Your task to perform on an android device: find snoozed emails in the gmail app Image 0: 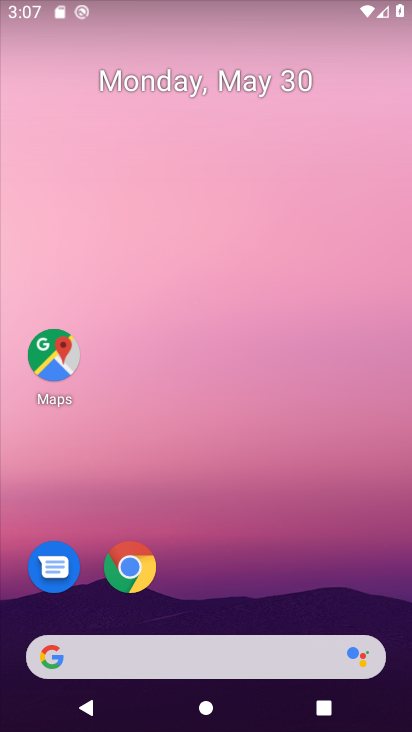
Step 0: drag from (238, 582) to (256, 1)
Your task to perform on an android device: find snoozed emails in the gmail app Image 1: 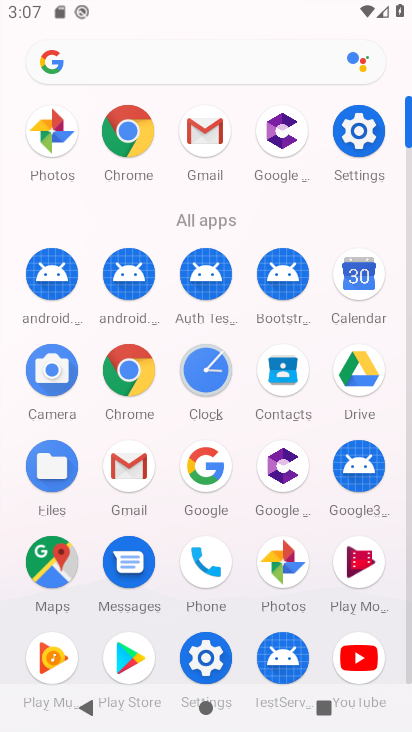
Step 1: click (138, 464)
Your task to perform on an android device: find snoozed emails in the gmail app Image 2: 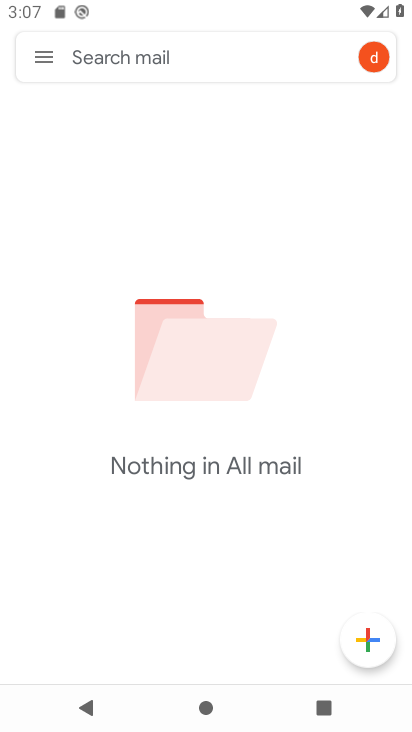
Step 2: click (38, 47)
Your task to perform on an android device: find snoozed emails in the gmail app Image 3: 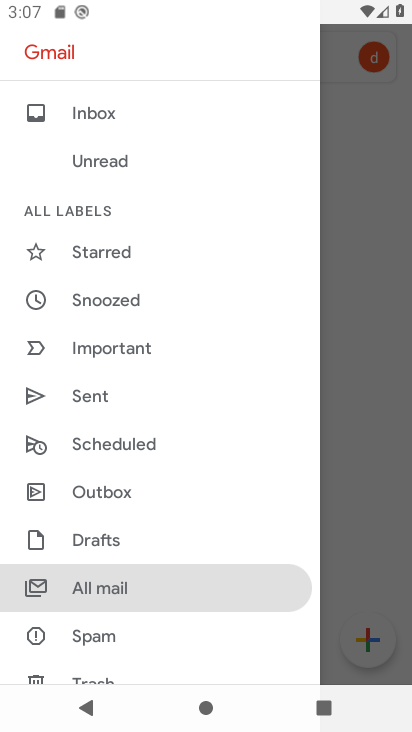
Step 3: click (119, 303)
Your task to perform on an android device: find snoozed emails in the gmail app Image 4: 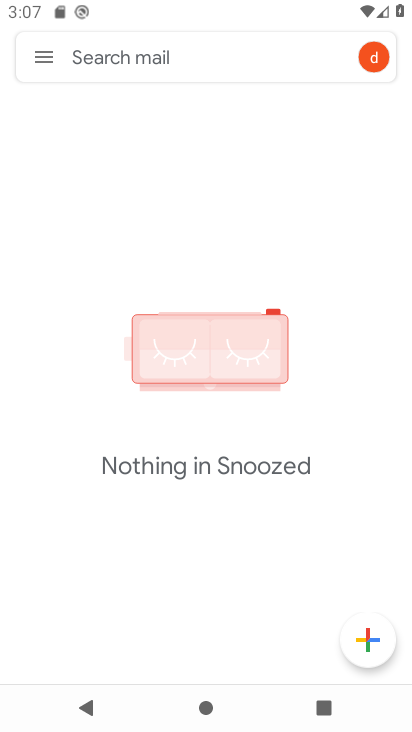
Step 4: task complete